Your task to perform on an android device: toggle pop-ups in chrome Image 0: 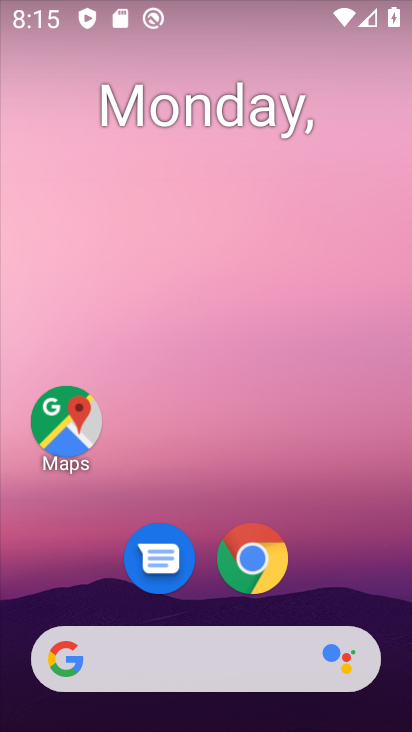
Step 0: click (255, 554)
Your task to perform on an android device: toggle pop-ups in chrome Image 1: 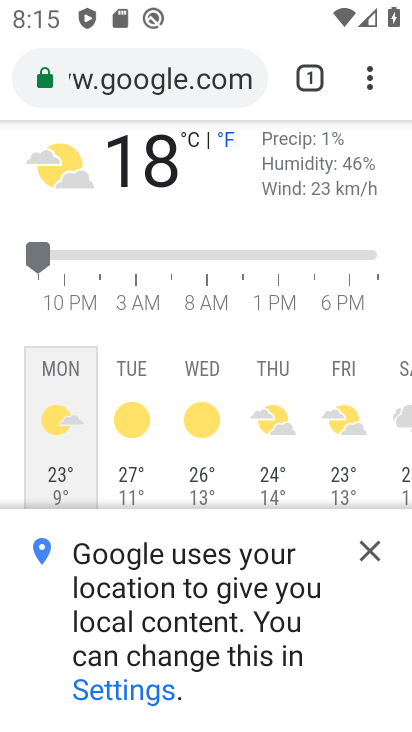
Step 1: drag from (359, 93) to (331, 379)
Your task to perform on an android device: toggle pop-ups in chrome Image 2: 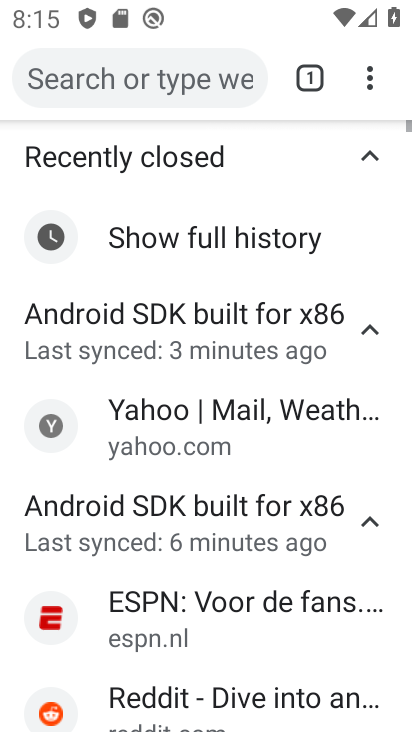
Step 2: drag from (372, 67) to (88, 599)
Your task to perform on an android device: toggle pop-ups in chrome Image 3: 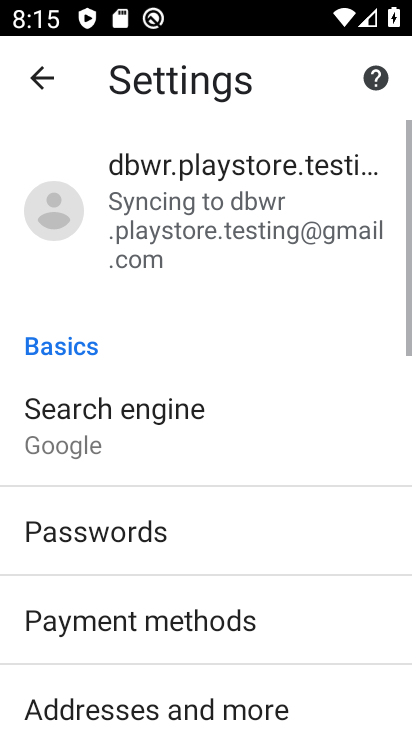
Step 3: drag from (122, 518) to (287, 25)
Your task to perform on an android device: toggle pop-ups in chrome Image 4: 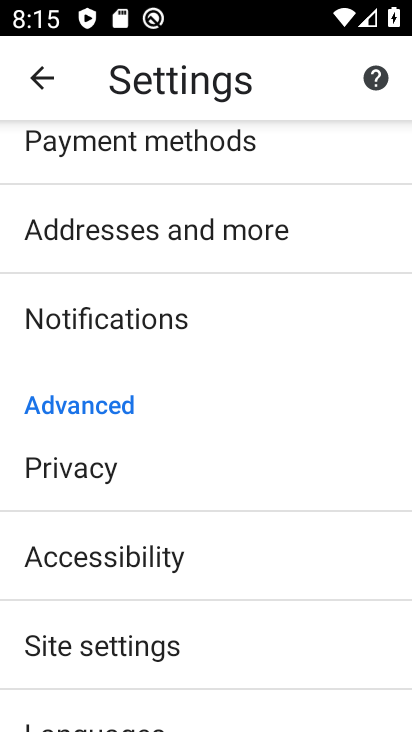
Step 4: drag from (300, 430) to (383, 84)
Your task to perform on an android device: toggle pop-ups in chrome Image 5: 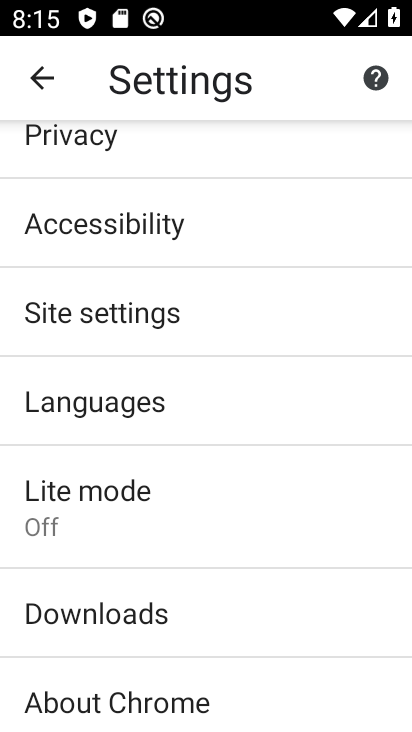
Step 5: click (207, 330)
Your task to perform on an android device: toggle pop-ups in chrome Image 6: 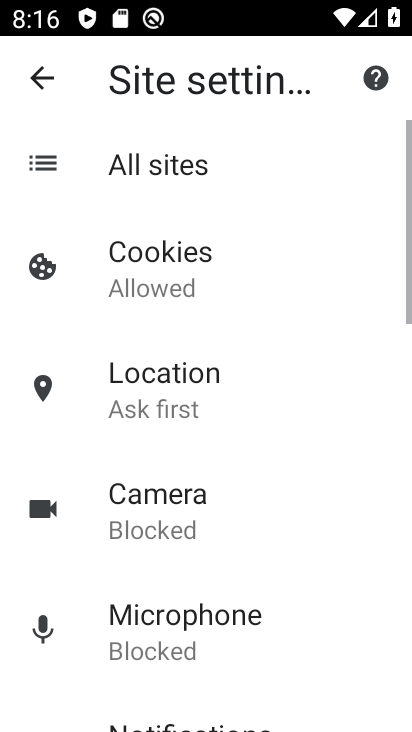
Step 6: drag from (246, 626) to (301, 180)
Your task to perform on an android device: toggle pop-ups in chrome Image 7: 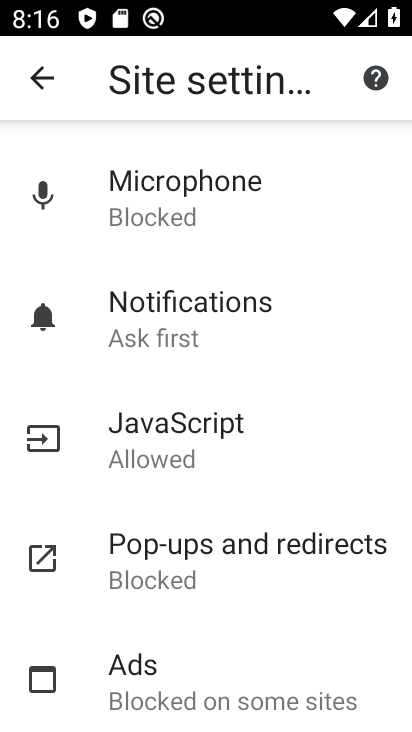
Step 7: click (230, 548)
Your task to perform on an android device: toggle pop-ups in chrome Image 8: 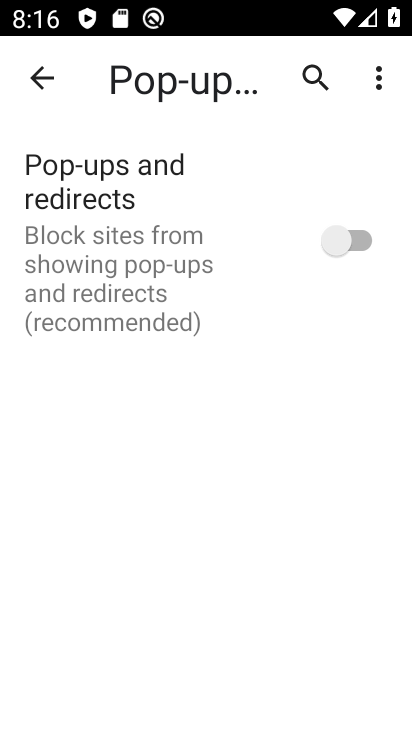
Step 8: click (342, 249)
Your task to perform on an android device: toggle pop-ups in chrome Image 9: 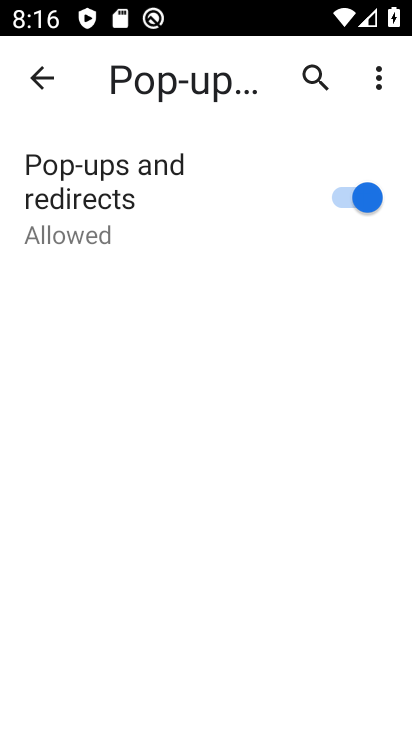
Step 9: task complete